Your task to perform on an android device: clear all cookies in the chrome app Image 0: 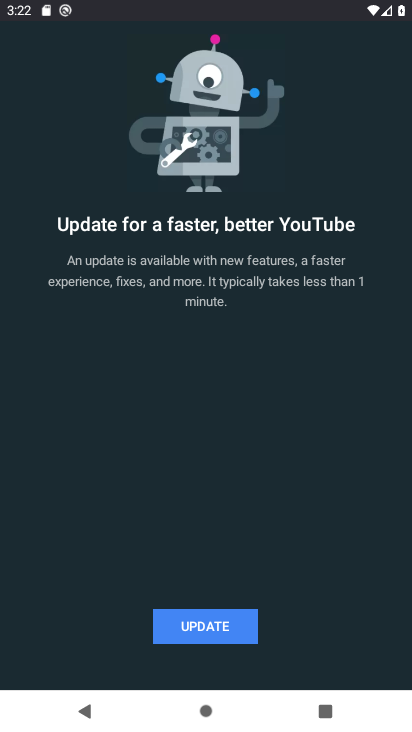
Step 0: press back button
Your task to perform on an android device: clear all cookies in the chrome app Image 1: 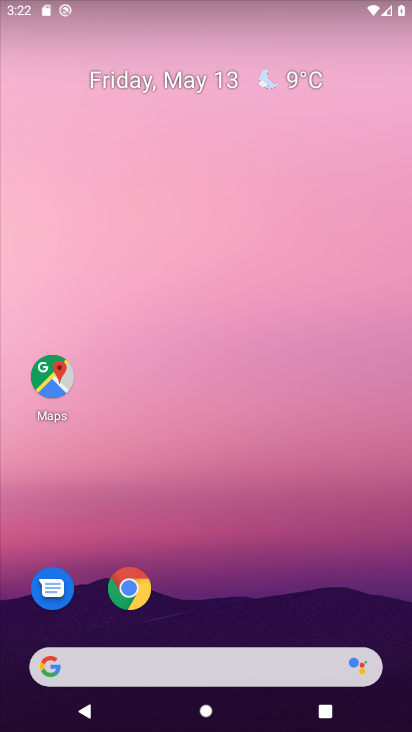
Step 1: click (133, 589)
Your task to perform on an android device: clear all cookies in the chrome app Image 2: 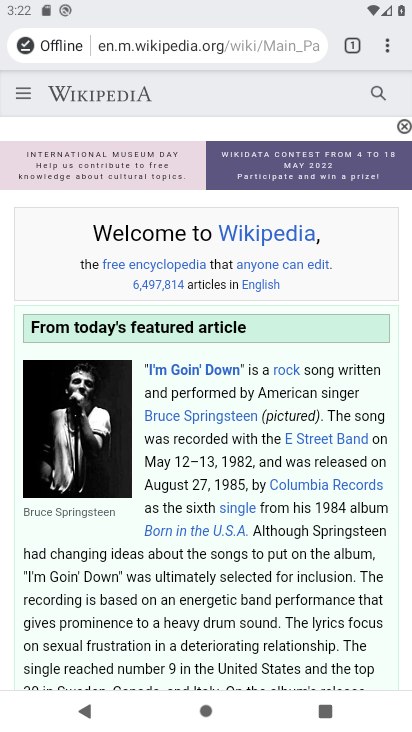
Step 2: click (391, 50)
Your task to perform on an android device: clear all cookies in the chrome app Image 3: 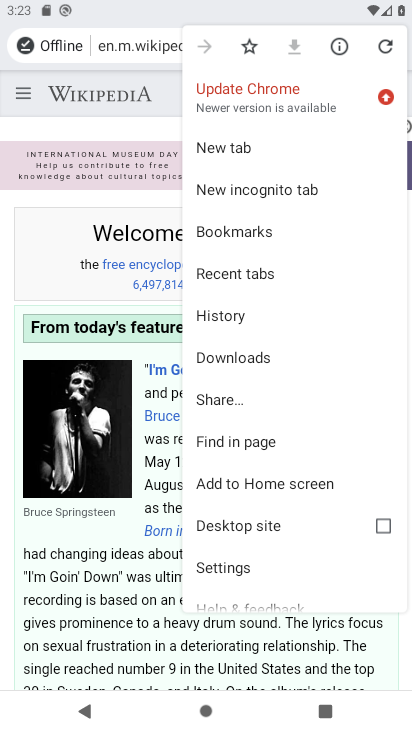
Step 3: click (278, 563)
Your task to perform on an android device: clear all cookies in the chrome app Image 4: 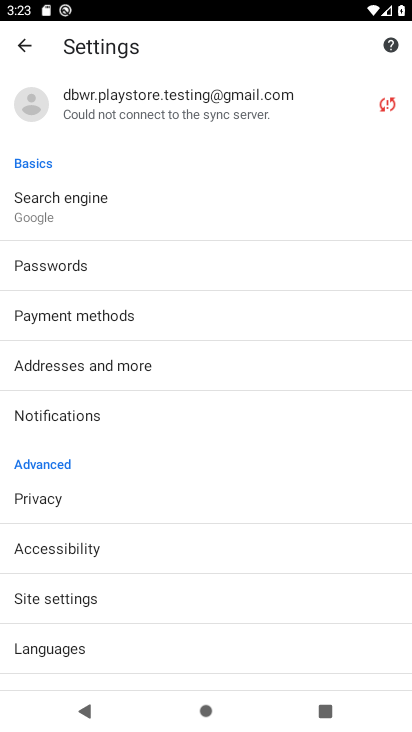
Step 4: drag from (191, 589) to (139, 424)
Your task to perform on an android device: clear all cookies in the chrome app Image 5: 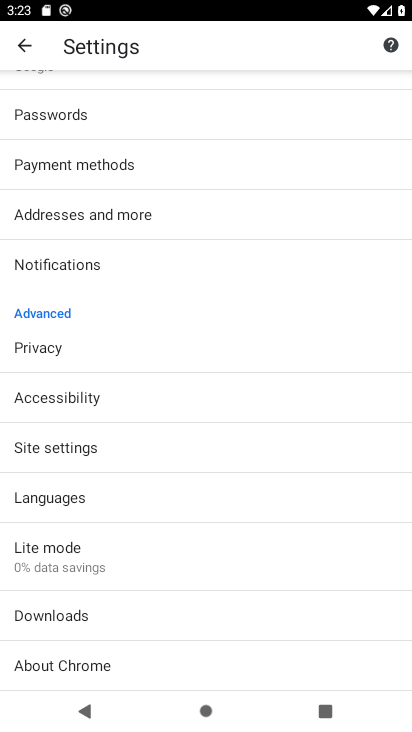
Step 5: click (71, 440)
Your task to perform on an android device: clear all cookies in the chrome app Image 6: 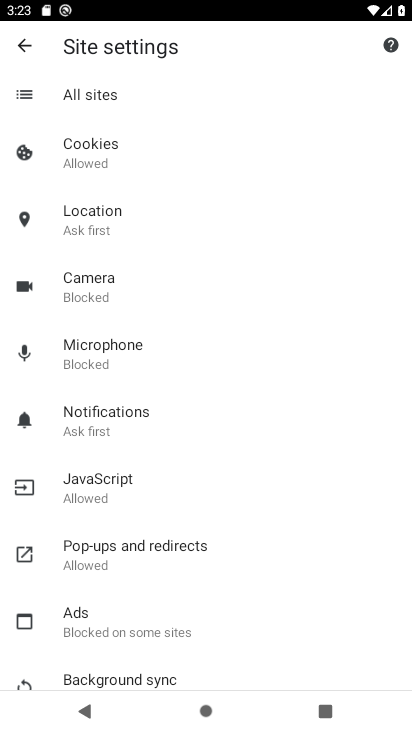
Step 6: click (23, 52)
Your task to perform on an android device: clear all cookies in the chrome app Image 7: 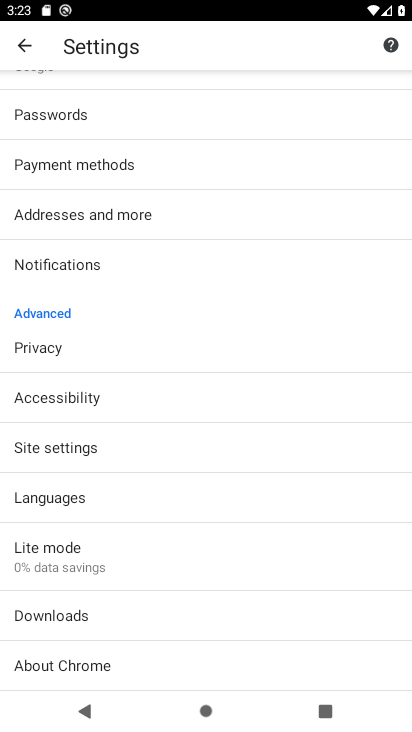
Step 7: click (122, 354)
Your task to perform on an android device: clear all cookies in the chrome app Image 8: 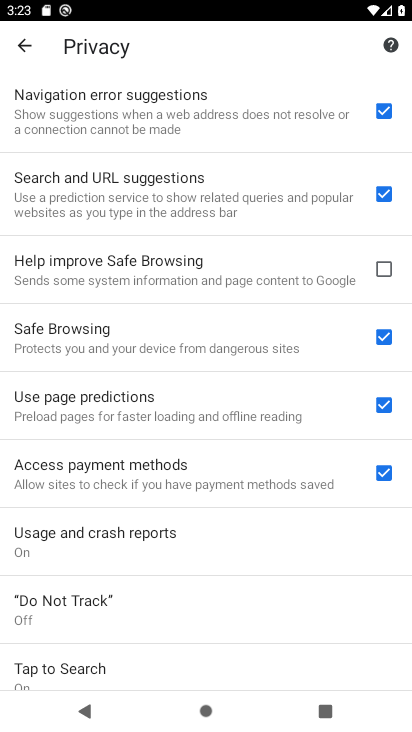
Step 8: drag from (244, 581) to (154, 345)
Your task to perform on an android device: clear all cookies in the chrome app Image 9: 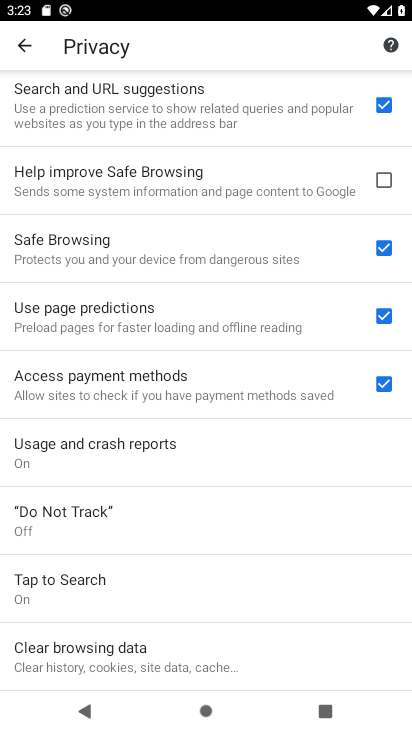
Step 9: click (212, 666)
Your task to perform on an android device: clear all cookies in the chrome app Image 10: 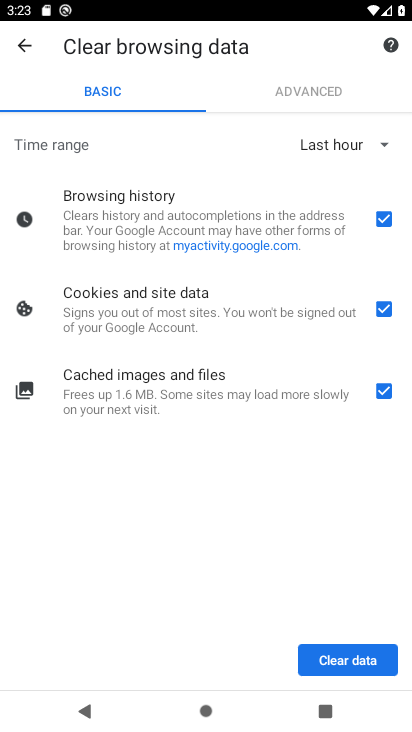
Step 10: click (385, 216)
Your task to perform on an android device: clear all cookies in the chrome app Image 11: 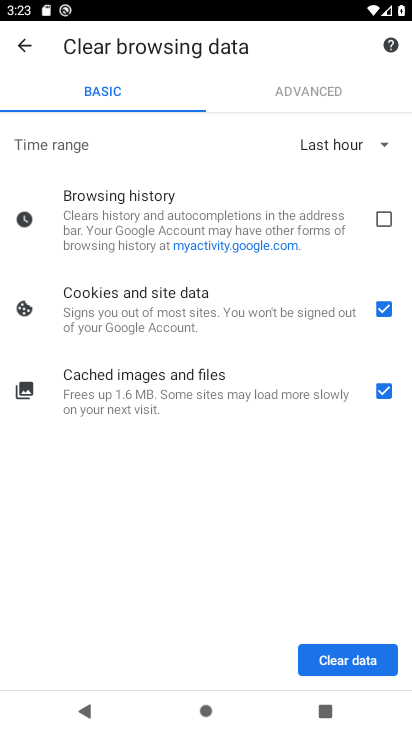
Step 11: click (357, 147)
Your task to perform on an android device: clear all cookies in the chrome app Image 12: 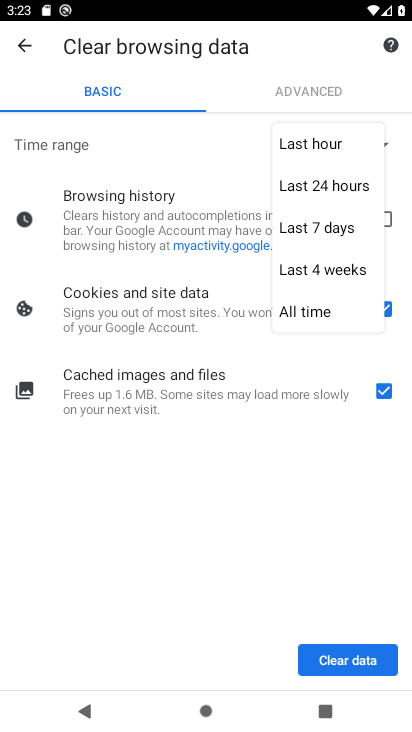
Step 12: click (356, 312)
Your task to perform on an android device: clear all cookies in the chrome app Image 13: 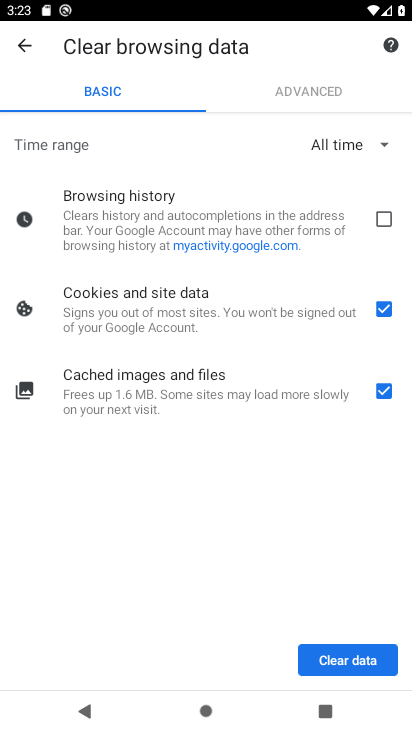
Step 13: click (387, 395)
Your task to perform on an android device: clear all cookies in the chrome app Image 14: 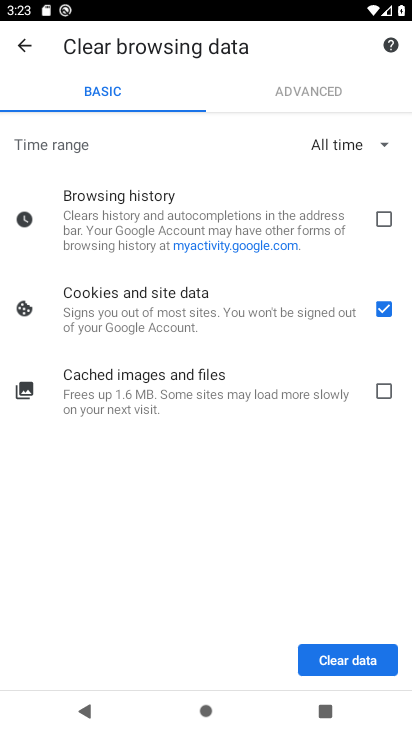
Step 14: click (375, 657)
Your task to perform on an android device: clear all cookies in the chrome app Image 15: 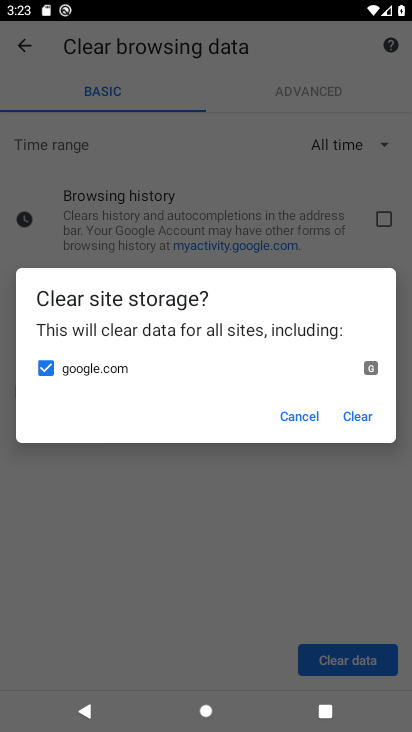
Step 15: click (362, 414)
Your task to perform on an android device: clear all cookies in the chrome app Image 16: 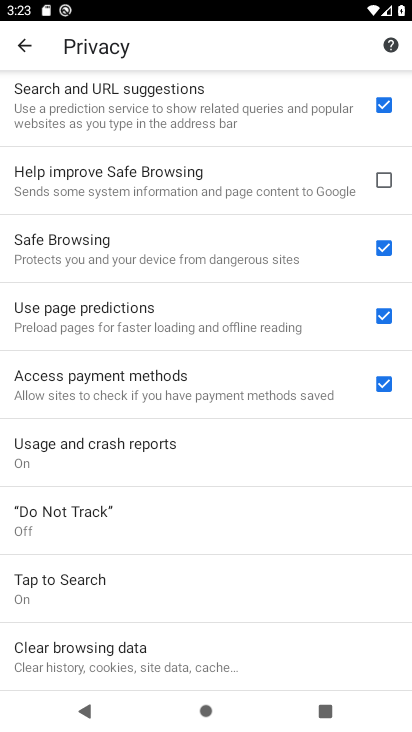
Step 16: task complete